Your task to perform on an android device: turn vacation reply on in the gmail app Image 0: 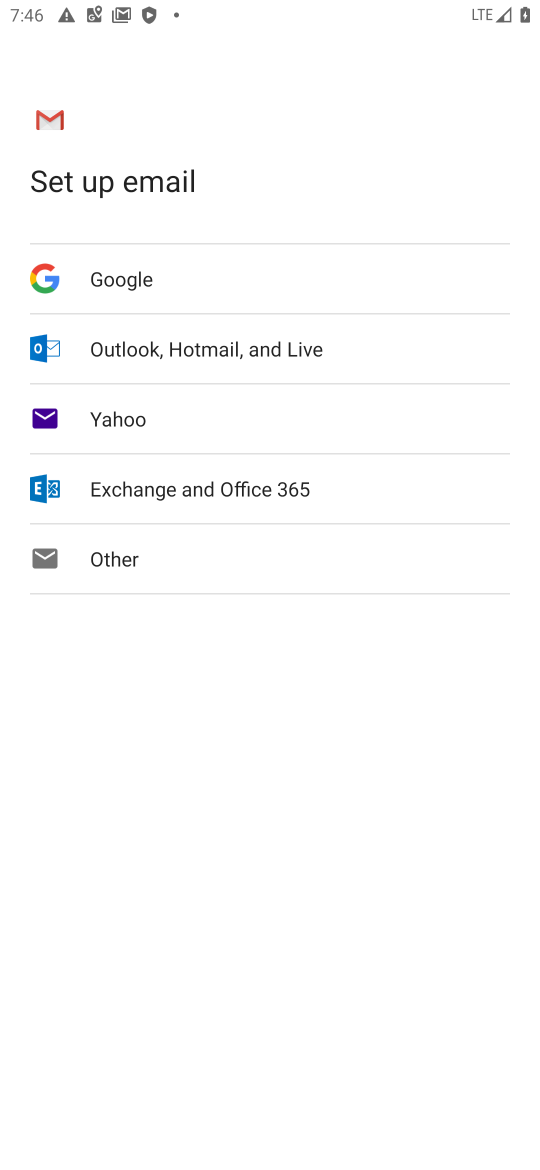
Step 0: press home button
Your task to perform on an android device: turn vacation reply on in the gmail app Image 1: 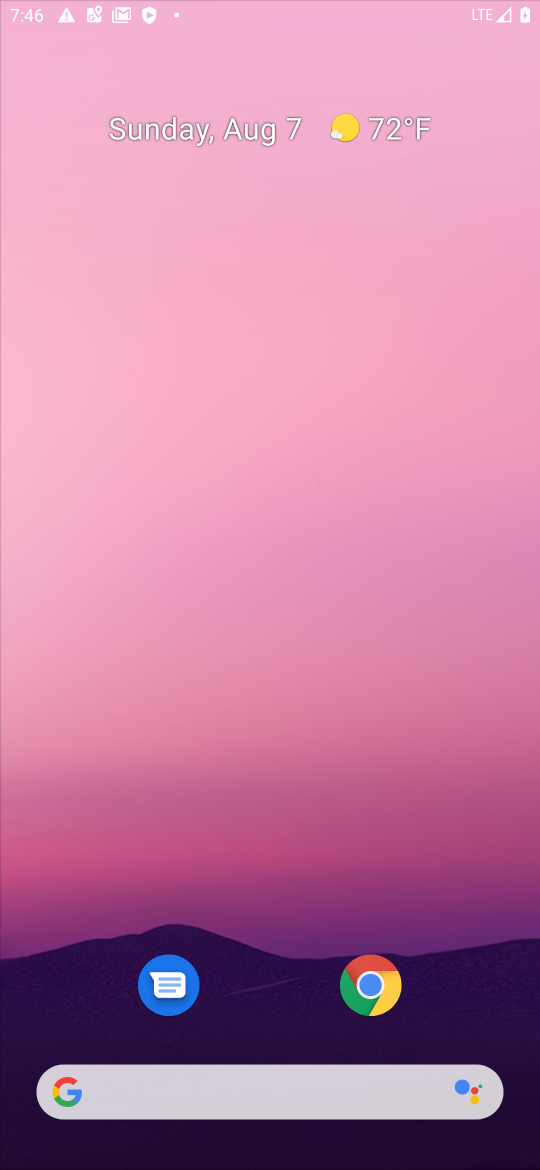
Step 1: drag from (246, 1002) to (306, 266)
Your task to perform on an android device: turn vacation reply on in the gmail app Image 2: 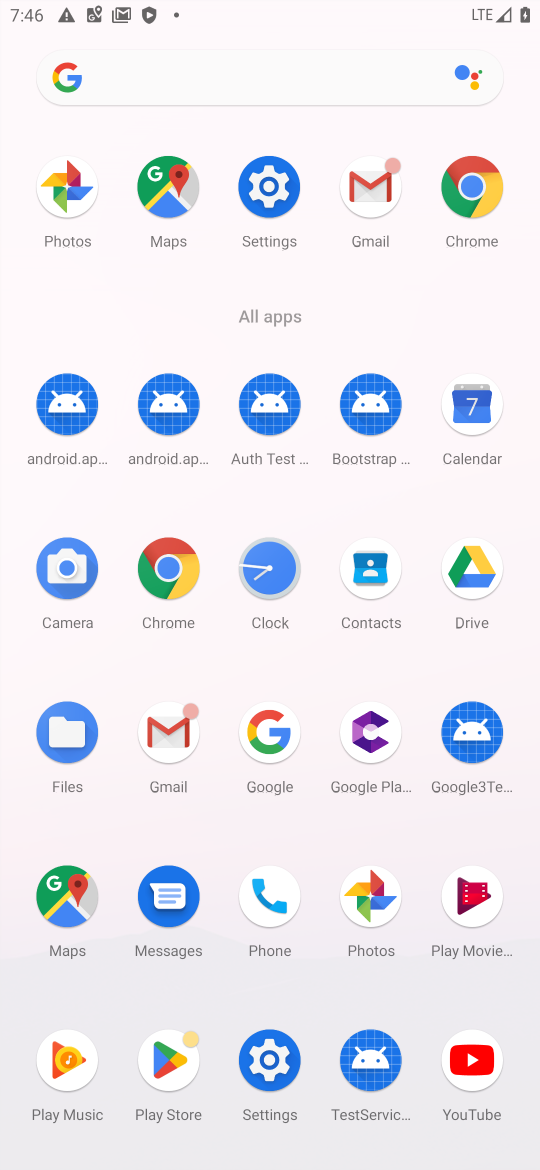
Step 2: click (367, 186)
Your task to perform on an android device: turn vacation reply on in the gmail app Image 3: 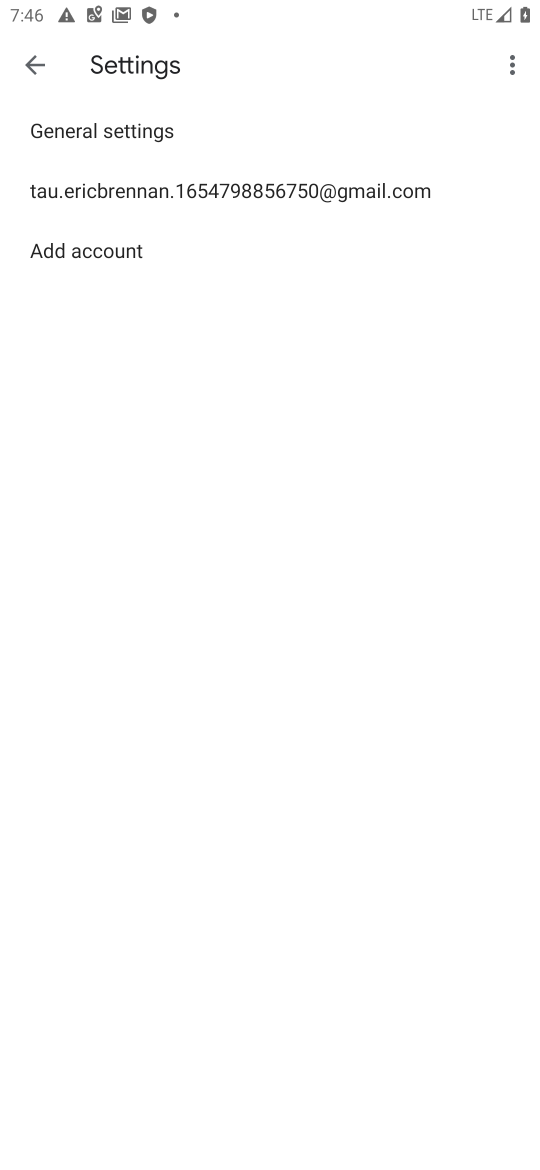
Step 3: click (118, 188)
Your task to perform on an android device: turn vacation reply on in the gmail app Image 4: 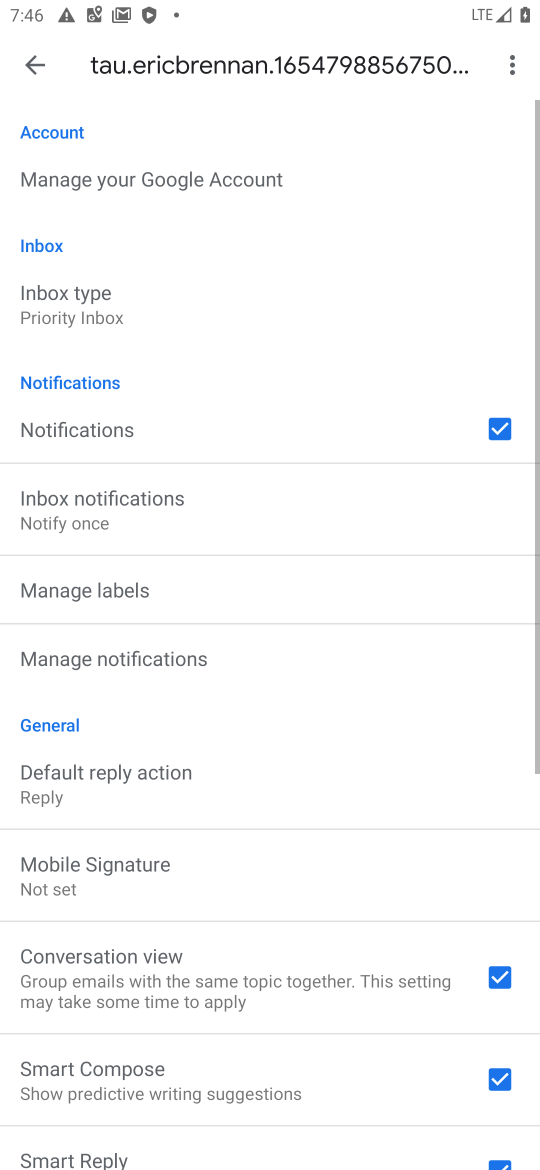
Step 4: drag from (151, 1070) to (352, 203)
Your task to perform on an android device: turn vacation reply on in the gmail app Image 5: 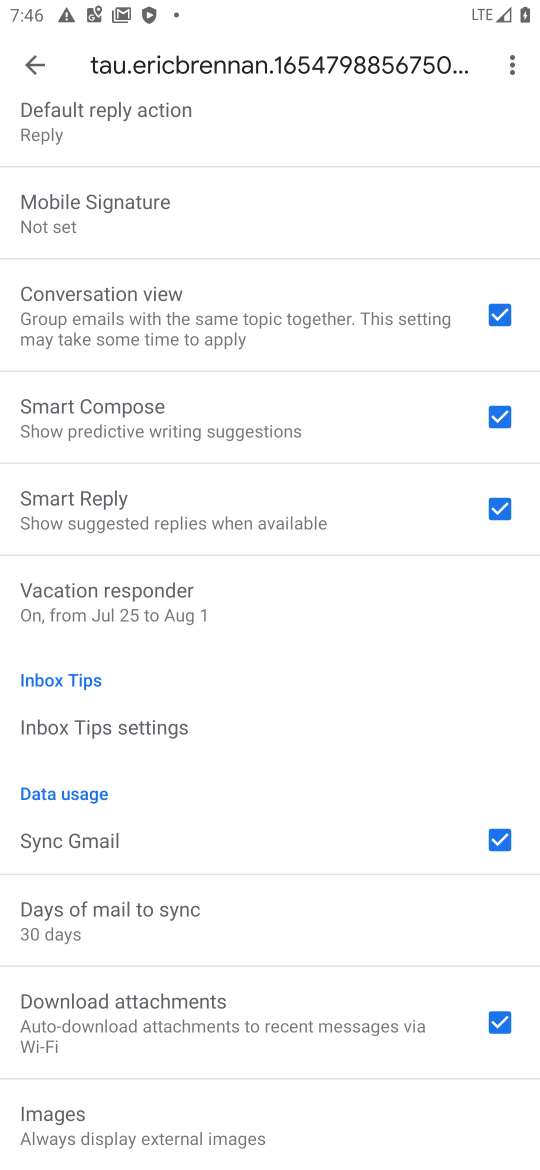
Step 5: drag from (148, 1005) to (219, 486)
Your task to perform on an android device: turn vacation reply on in the gmail app Image 6: 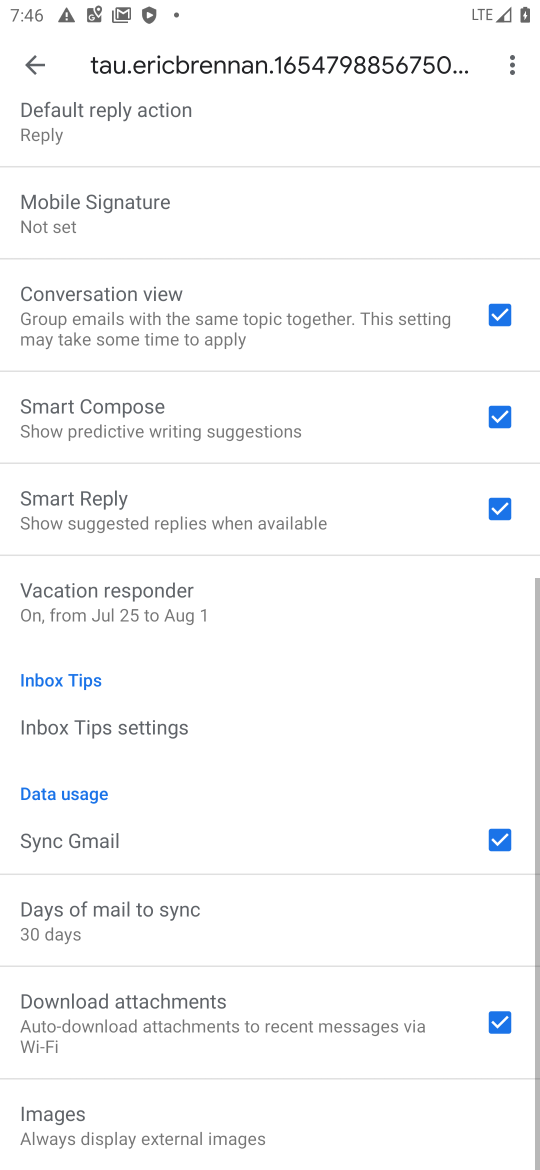
Step 6: click (131, 592)
Your task to perform on an android device: turn vacation reply on in the gmail app Image 7: 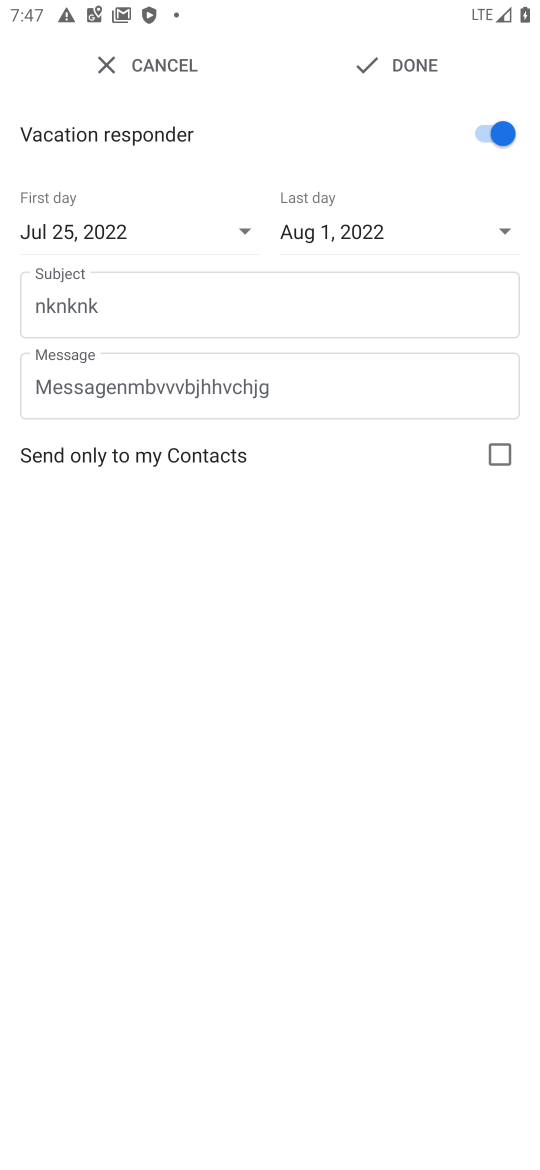
Step 7: task complete